Your task to perform on an android device: toggle javascript in the chrome app Image 0: 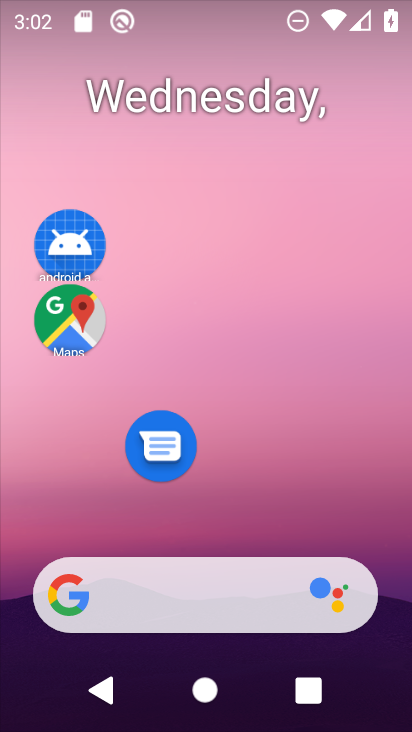
Step 0: drag from (288, 513) to (284, 95)
Your task to perform on an android device: toggle javascript in the chrome app Image 1: 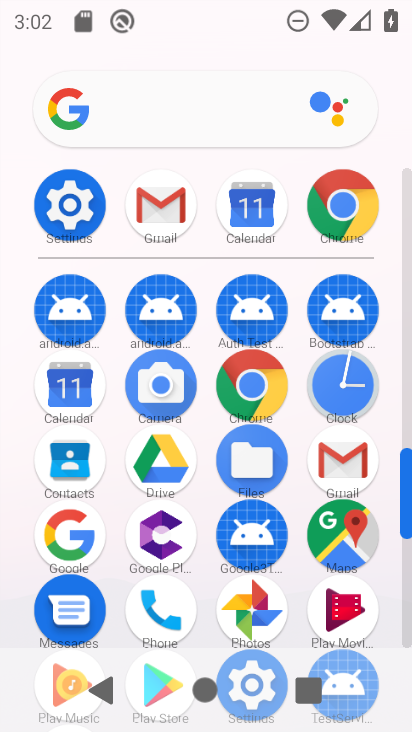
Step 1: click (330, 211)
Your task to perform on an android device: toggle javascript in the chrome app Image 2: 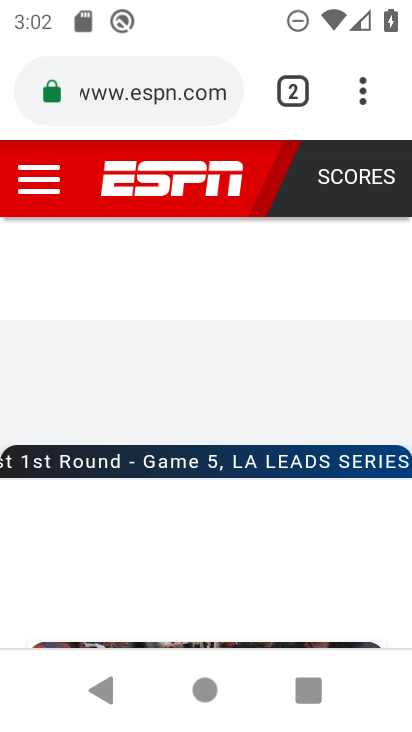
Step 2: click (354, 103)
Your task to perform on an android device: toggle javascript in the chrome app Image 3: 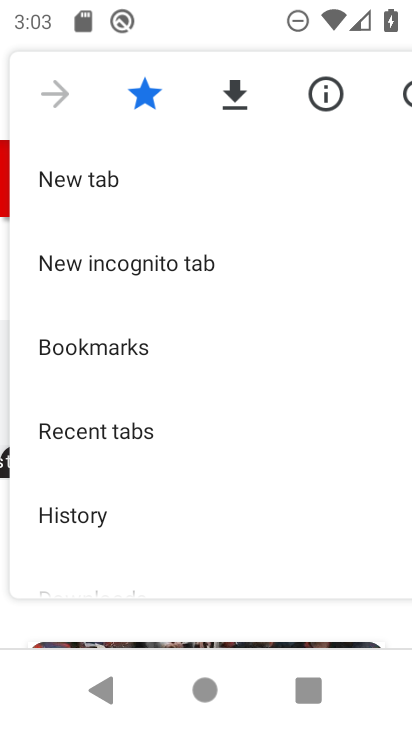
Step 3: drag from (249, 469) to (246, 305)
Your task to perform on an android device: toggle javascript in the chrome app Image 4: 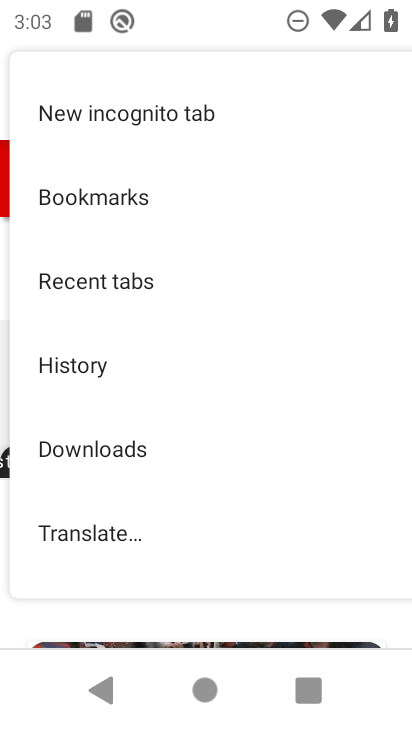
Step 4: drag from (178, 504) to (189, 239)
Your task to perform on an android device: toggle javascript in the chrome app Image 5: 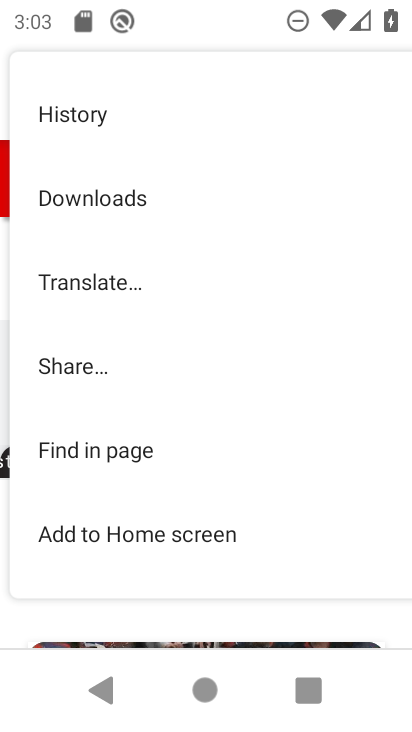
Step 5: drag from (178, 515) to (203, 230)
Your task to perform on an android device: toggle javascript in the chrome app Image 6: 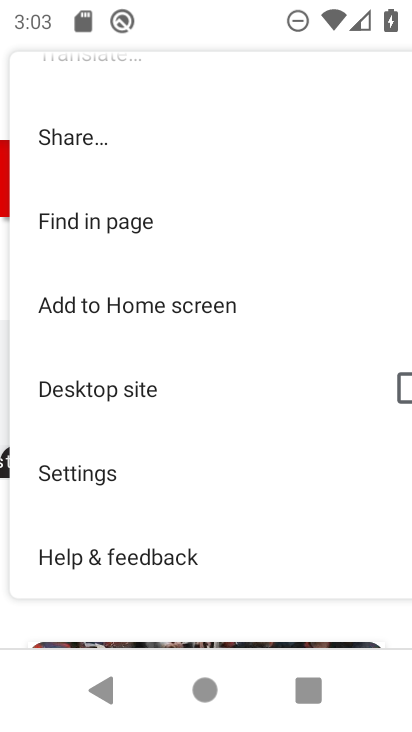
Step 6: click (153, 481)
Your task to perform on an android device: toggle javascript in the chrome app Image 7: 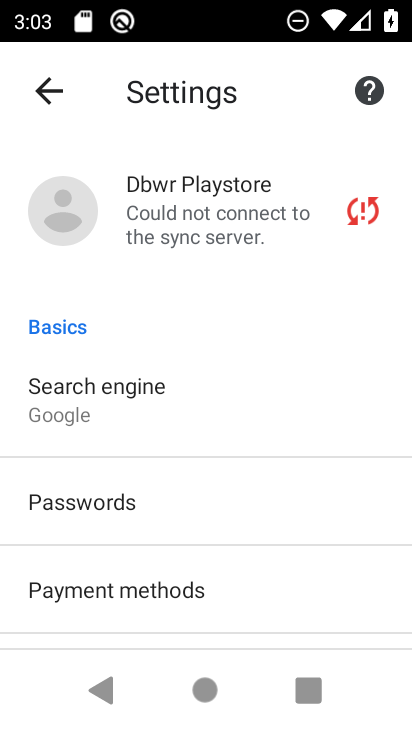
Step 7: drag from (153, 481) to (156, 243)
Your task to perform on an android device: toggle javascript in the chrome app Image 8: 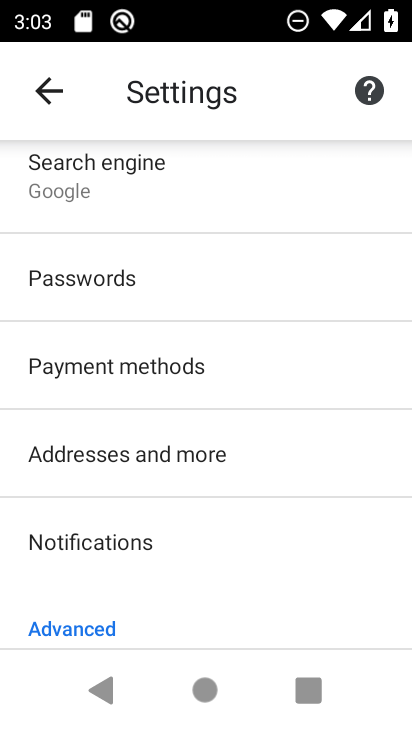
Step 8: drag from (210, 568) to (281, 304)
Your task to perform on an android device: toggle javascript in the chrome app Image 9: 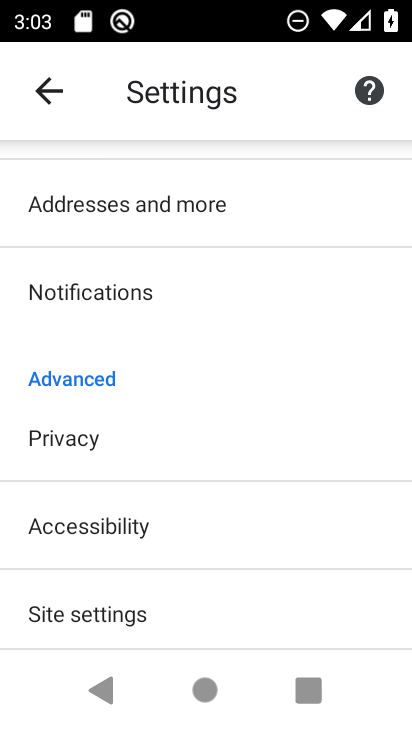
Step 9: click (239, 618)
Your task to perform on an android device: toggle javascript in the chrome app Image 10: 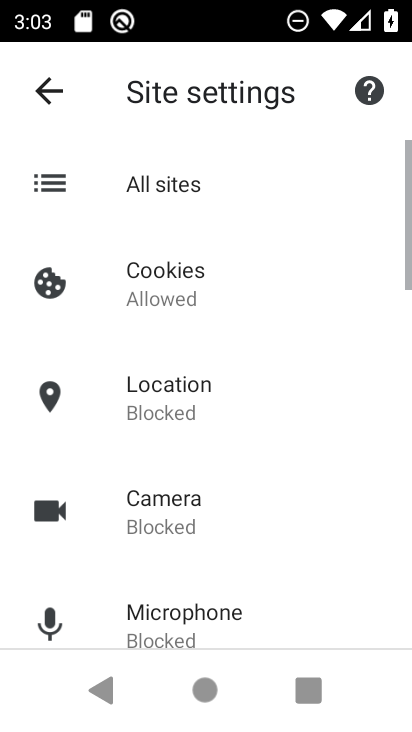
Step 10: drag from (213, 534) to (222, 161)
Your task to perform on an android device: toggle javascript in the chrome app Image 11: 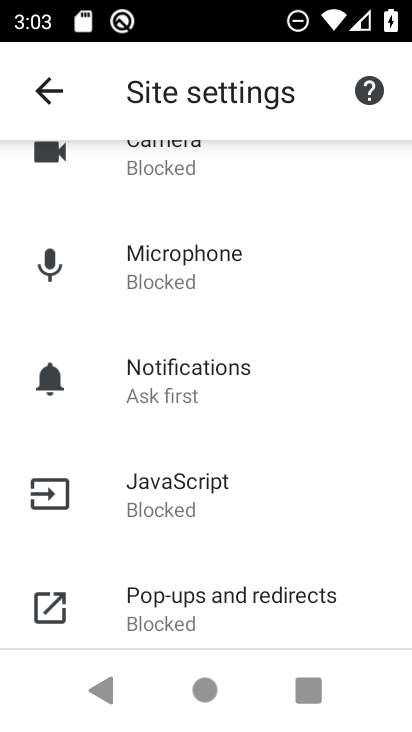
Step 11: click (202, 489)
Your task to perform on an android device: toggle javascript in the chrome app Image 12: 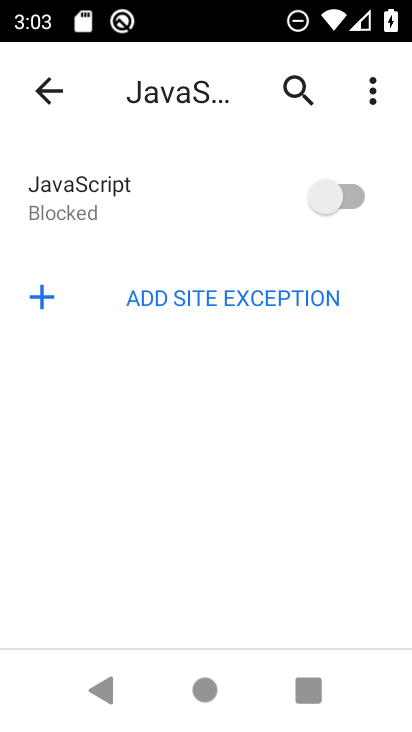
Step 12: click (343, 215)
Your task to perform on an android device: toggle javascript in the chrome app Image 13: 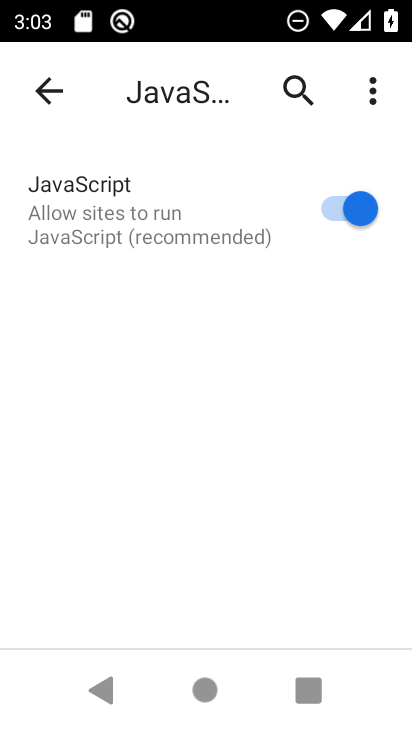
Step 13: task complete